Your task to perform on an android device: Show me recent news Image 0: 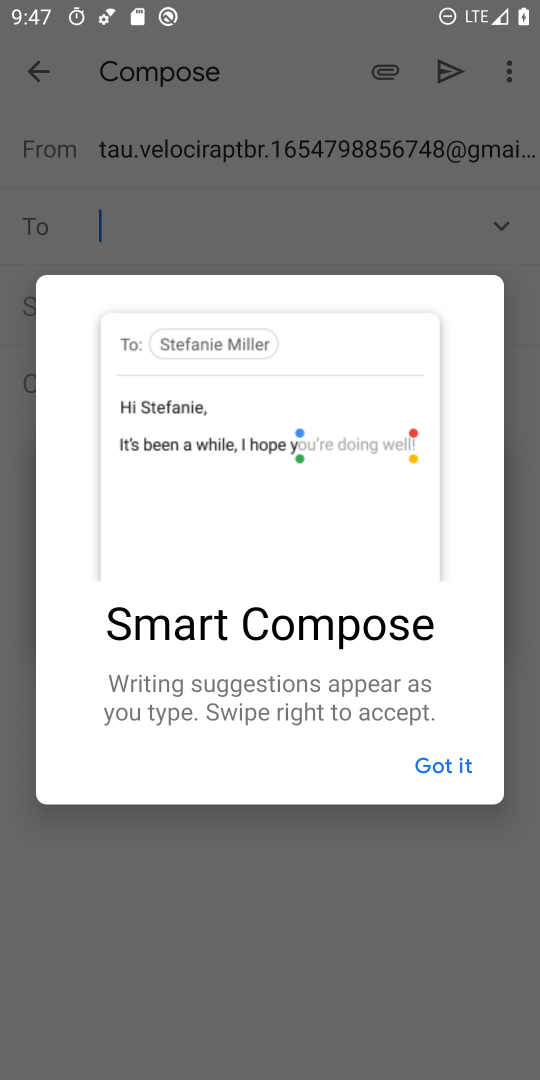
Step 0: press home button
Your task to perform on an android device: Show me recent news Image 1: 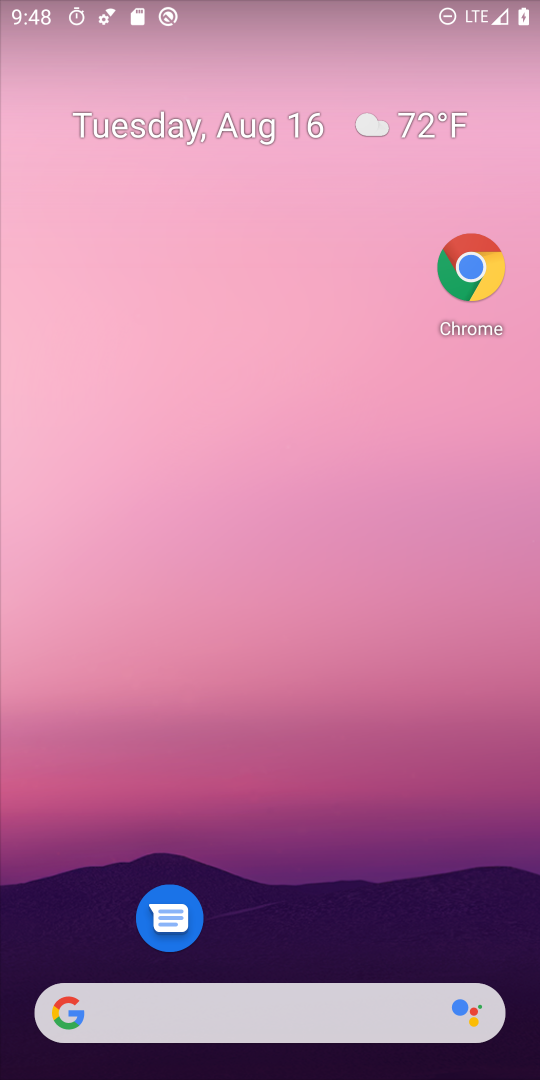
Step 1: click (232, 153)
Your task to perform on an android device: Show me recent news Image 2: 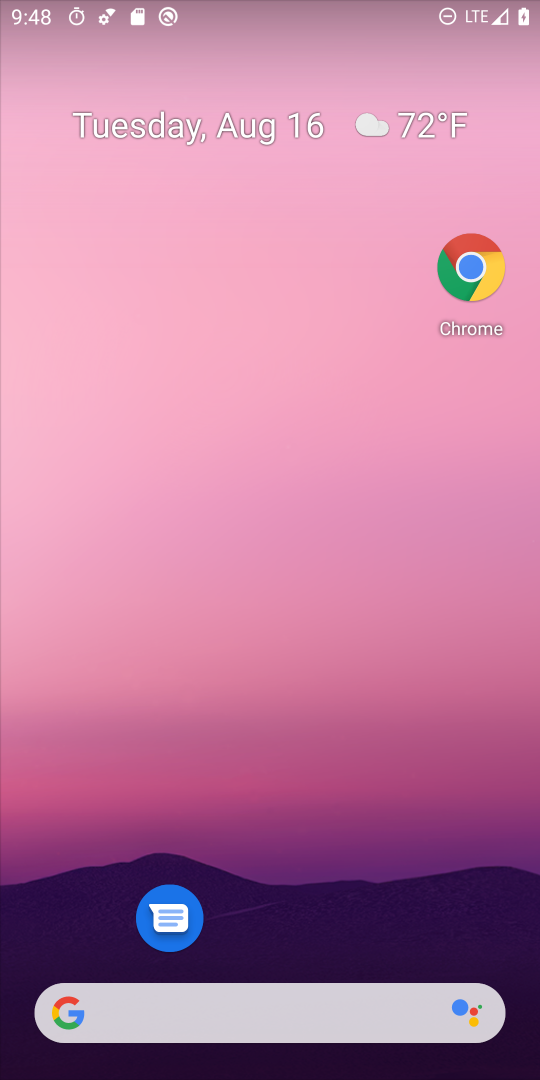
Step 2: drag from (208, 1005) to (196, 22)
Your task to perform on an android device: Show me recent news Image 3: 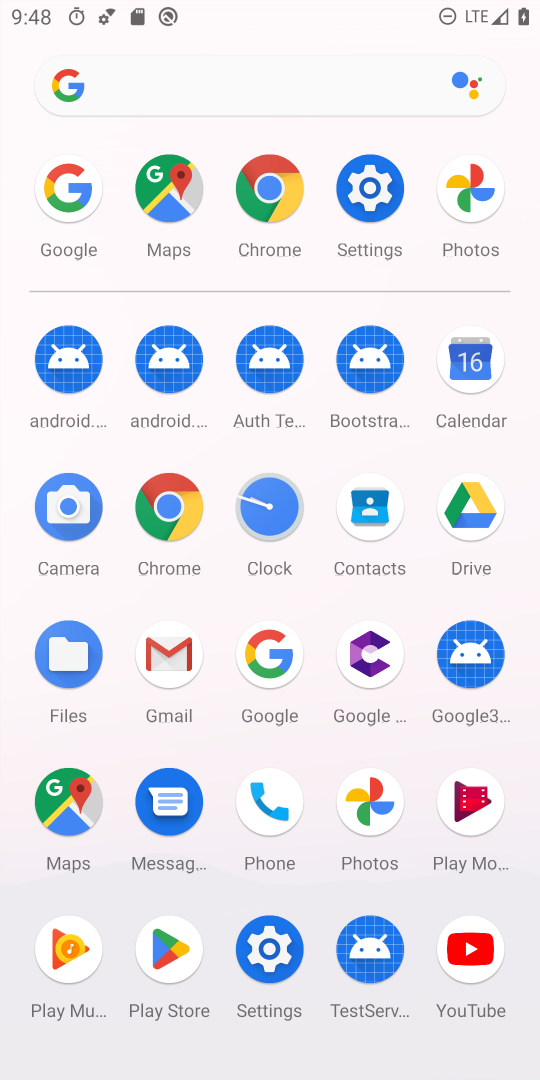
Step 3: click (272, 643)
Your task to perform on an android device: Show me recent news Image 4: 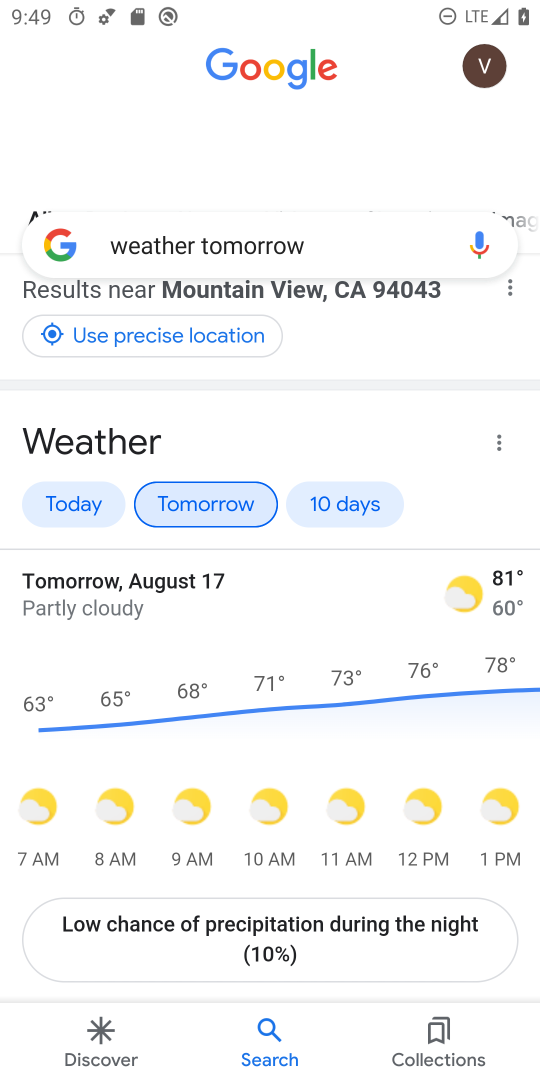
Step 4: click (376, 252)
Your task to perform on an android device: Show me recent news Image 5: 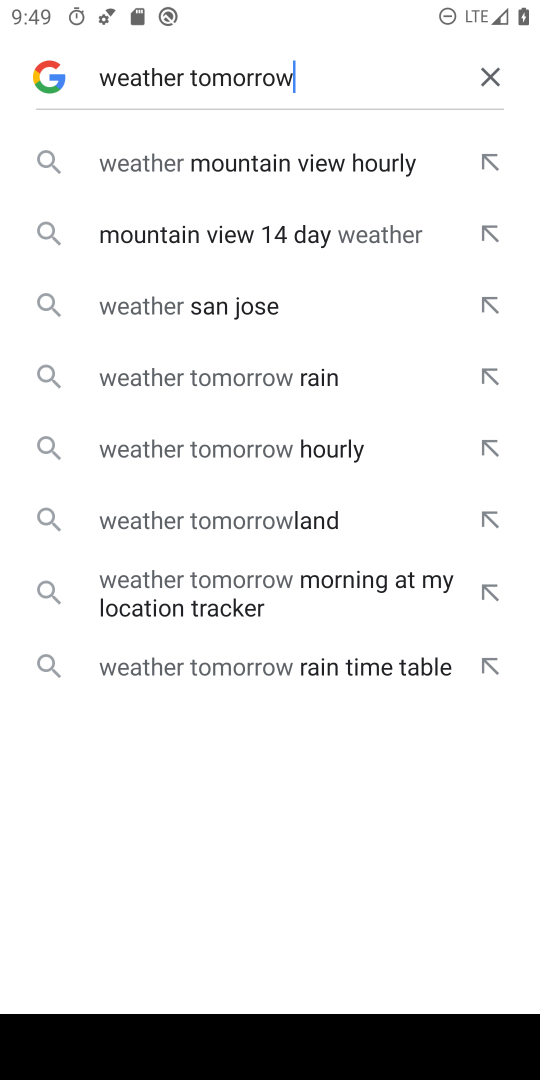
Step 5: click (500, 71)
Your task to perform on an android device: Show me recent news Image 6: 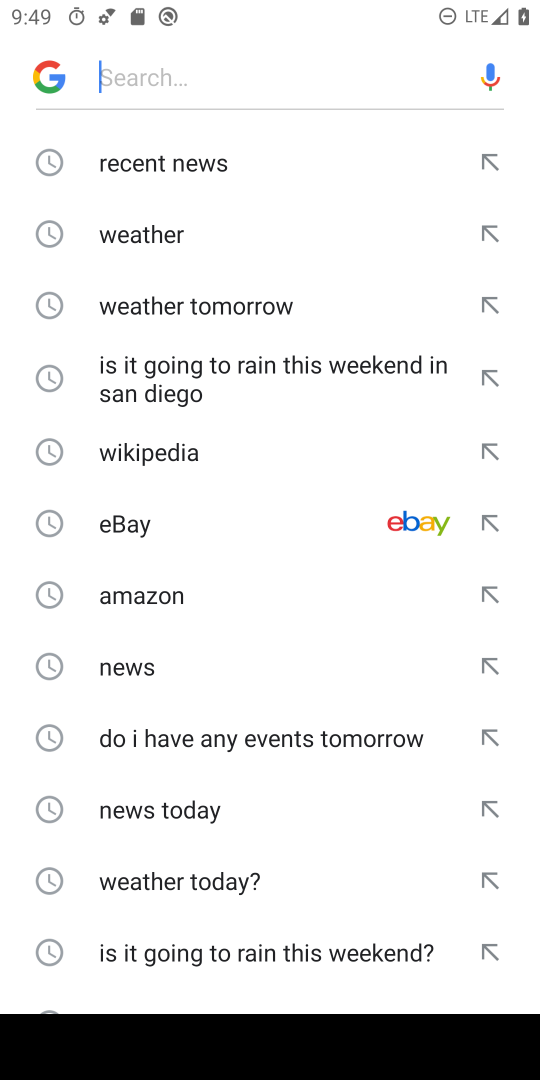
Step 6: click (235, 168)
Your task to perform on an android device: Show me recent news Image 7: 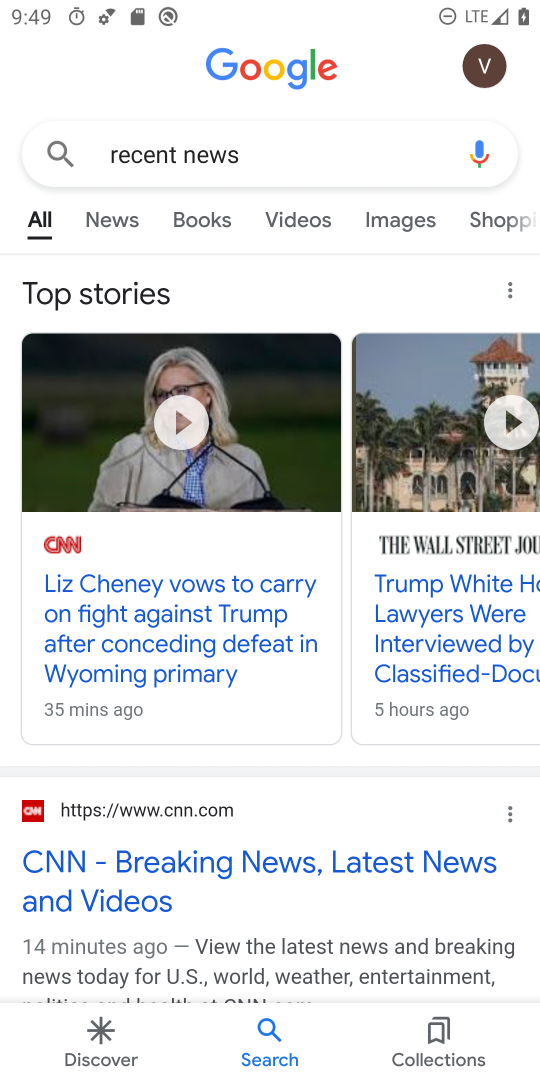
Step 7: click (133, 219)
Your task to perform on an android device: Show me recent news Image 8: 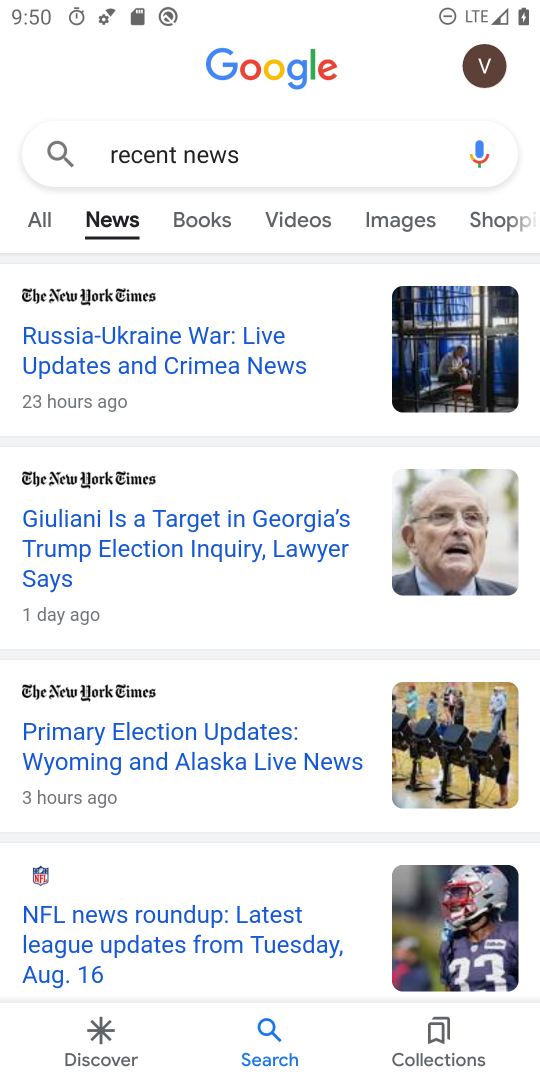
Step 8: task complete